Your task to perform on an android device: Open calendar and show me the third week of next month Image 0: 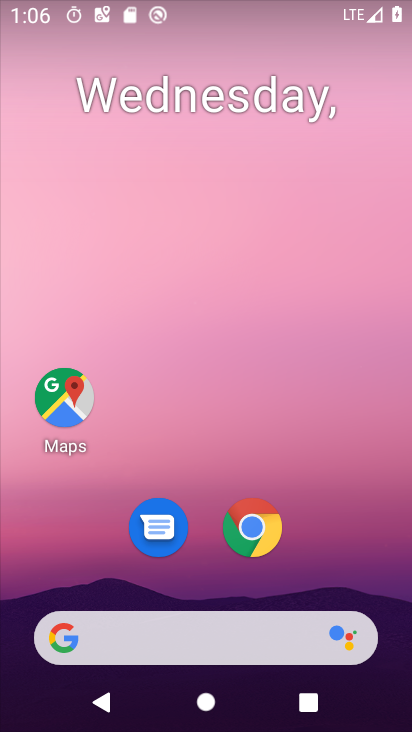
Step 0: drag from (232, 632) to (261, 0)
Your task to perform on an android device: Open calendar and show me the third week of next month Image 1: 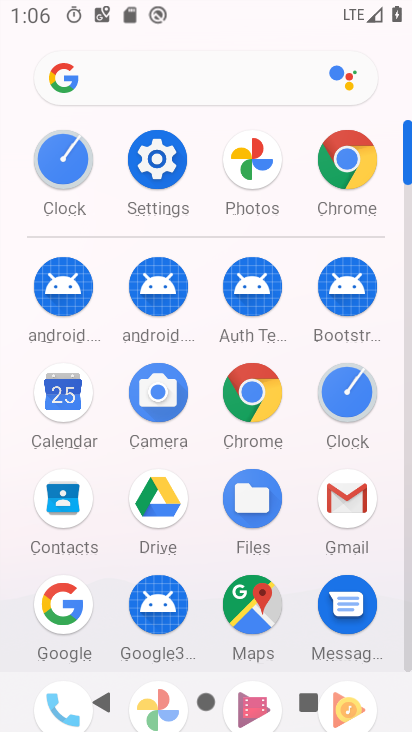
Step 1: click (74, 400)
Your task to perform on an android device: Open calendar and show me the third week of next month Image 2: 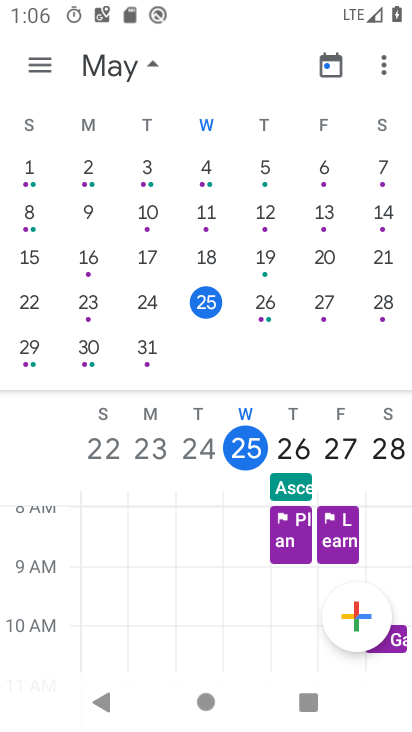
Step 2: drag from (333, 281) to (44, 312)
Your task to perform on an android device: Open calendar and show me the third week of next month Image 3: 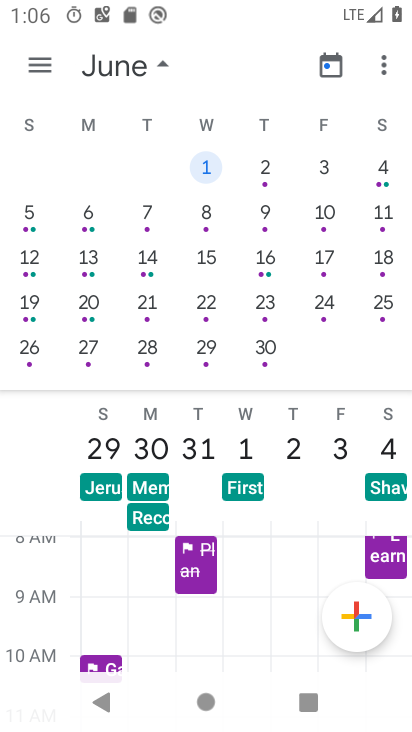
Step 3: click (204, 260)
Your task to perform on an android device: Open calendar and show me the third week of next month Image 4: 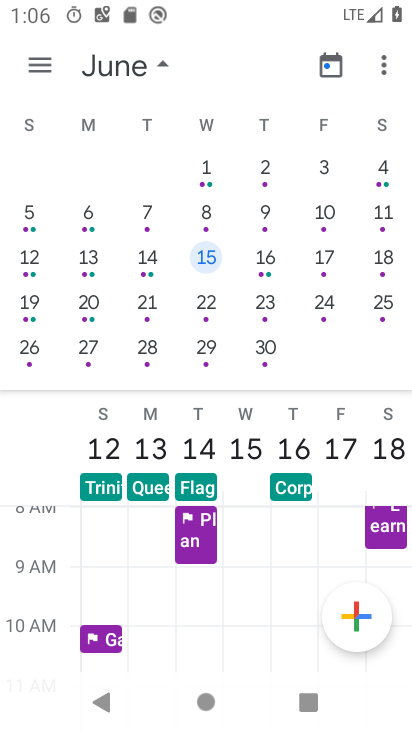
Step 4: click (35, 61)
Your task to perform on an android device: Open calendar and show me the third week of next month Image 5: 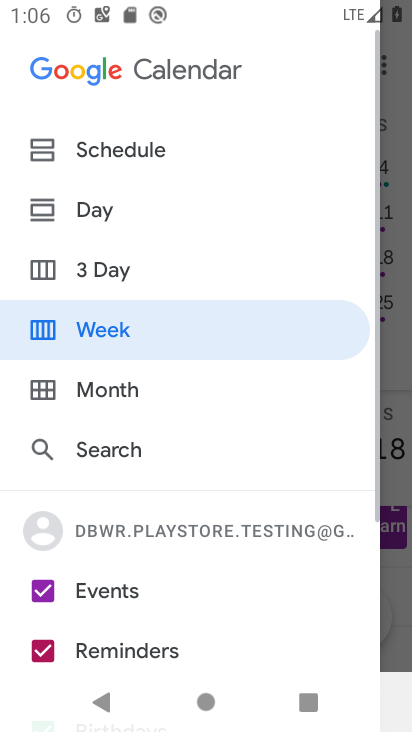
Step 5: click (106, 342)
Your task to perform on an android device: Open calendar and show me the third week of next month Image 6: 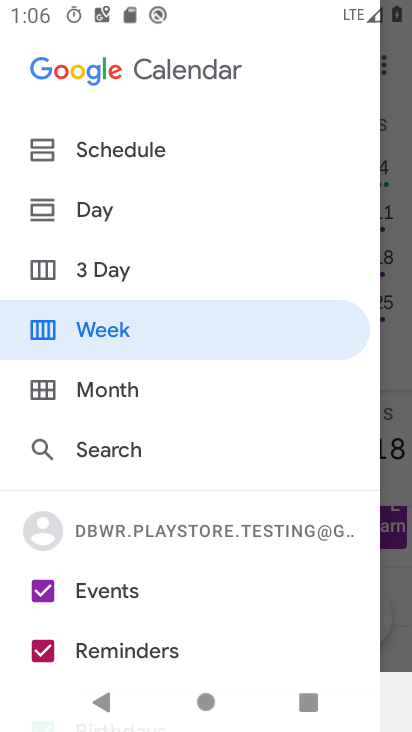
Step 6: task complete